Your task to perform on an android device: Go to network settings Image 0: 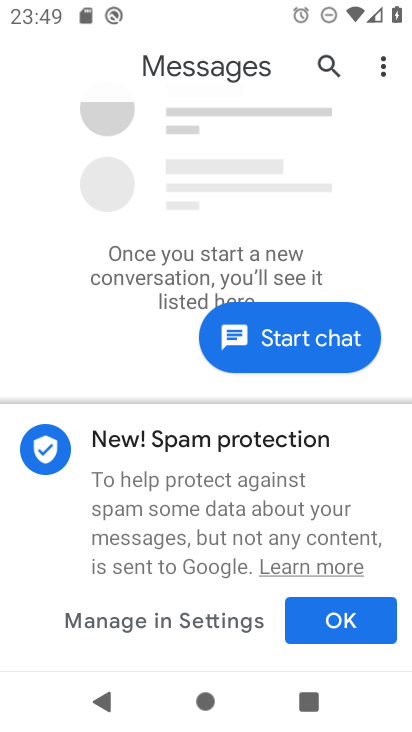
Step 0: press home button
Your task to perform on an android device: Go to network settings Image 1: 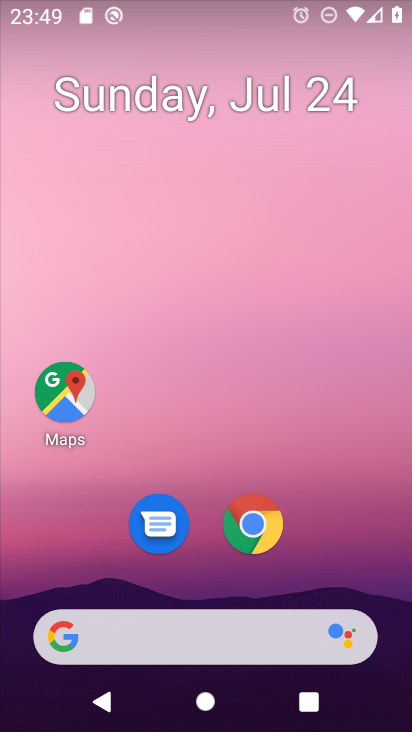
Step 1: drag from (168, 624) to (280, 127)
Your task to perform on an android device: Go to network settings Image 2: 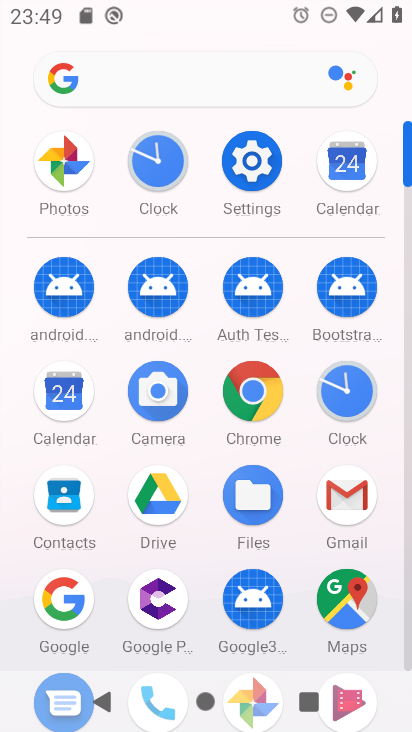
Step 2: click (246, 160)
Your task to perform on an android device: Go to network settings Image 3: 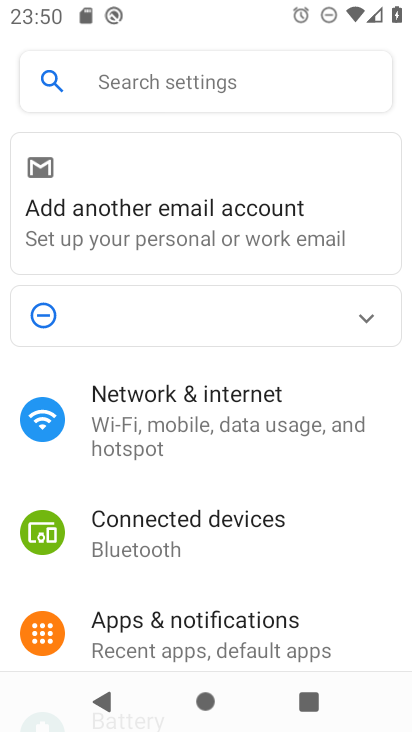
Step 3: click (178, 403)
Your task to perform on an android device: Go to network settings Image 4: 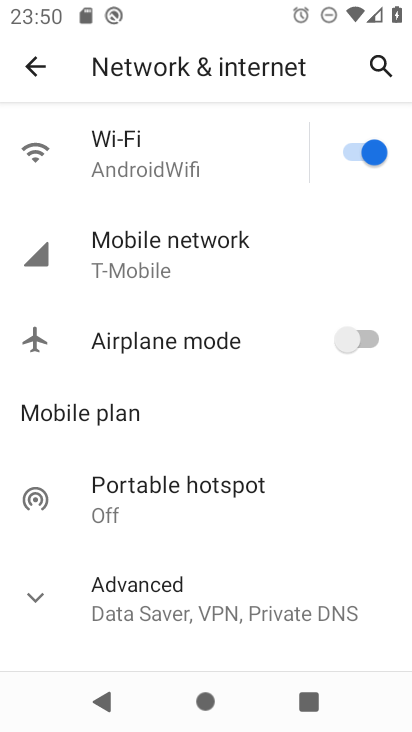
Step 4: click (195, 262)
Your task to perform on an android device: Go to network settings Image 5: 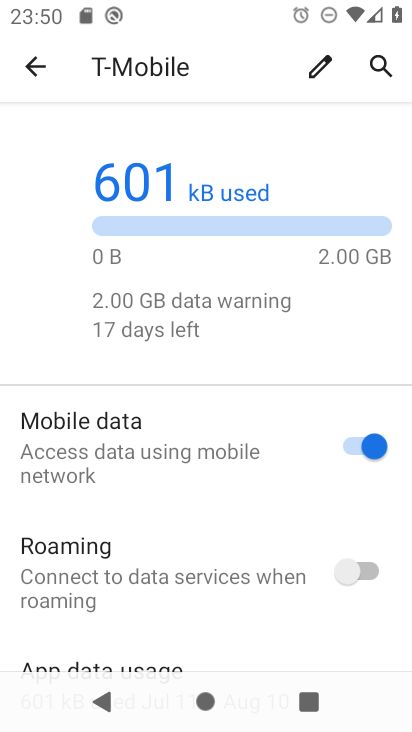
Step 5: task complete